Your task to perform on an android device: open chrome privacy settings Image 0: 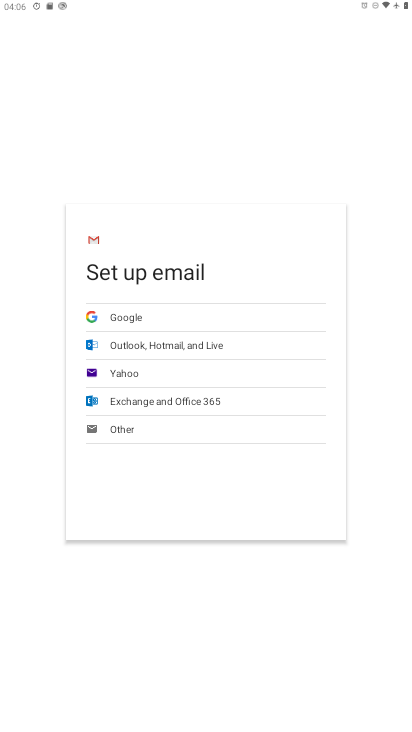
Step 0: press home button
Your task to perform on an android device: open chrome privacy settings Image 1: 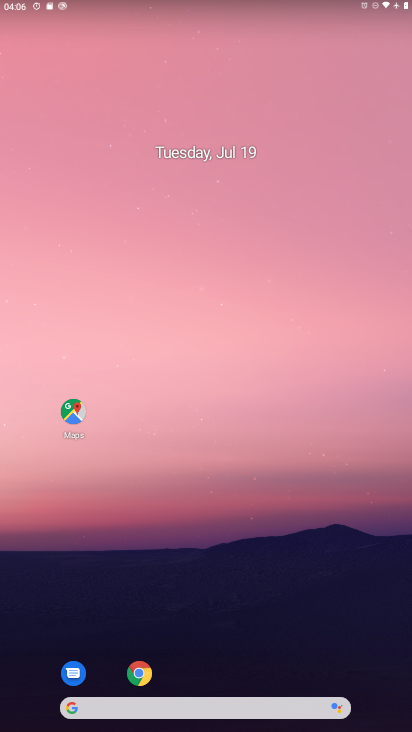
Step 1: click (138, 671)
Your task to perform on an android device: open chrome privacy settings Image 2: 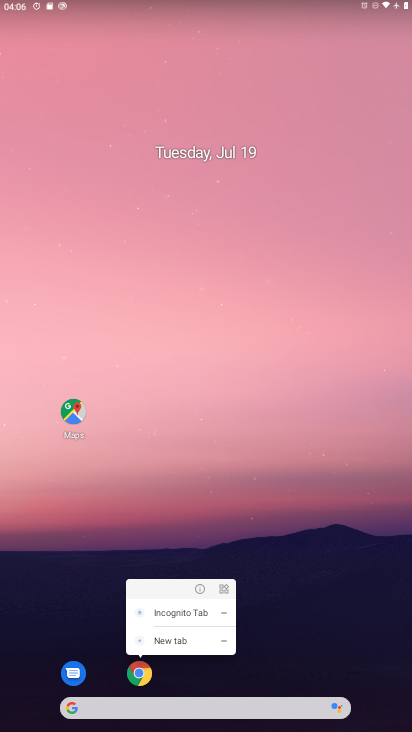
Step 2: click (138, 672)
Your task to perform on an android device: open chrome privacy settings Image 3: 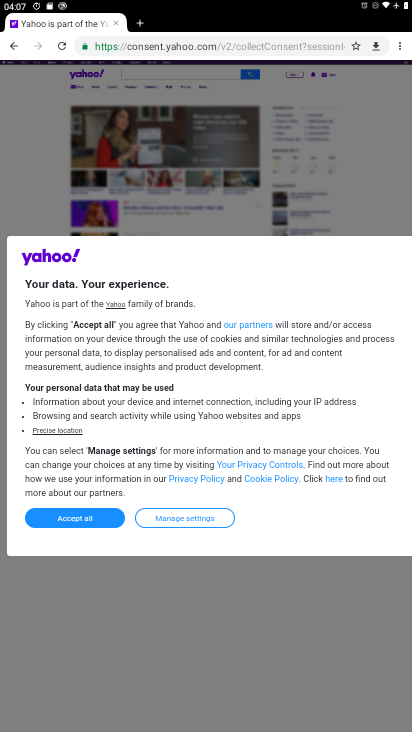
Step 3: click (391, 51)
Your task to perform on an android device: open chrome privacy settings Image 4: 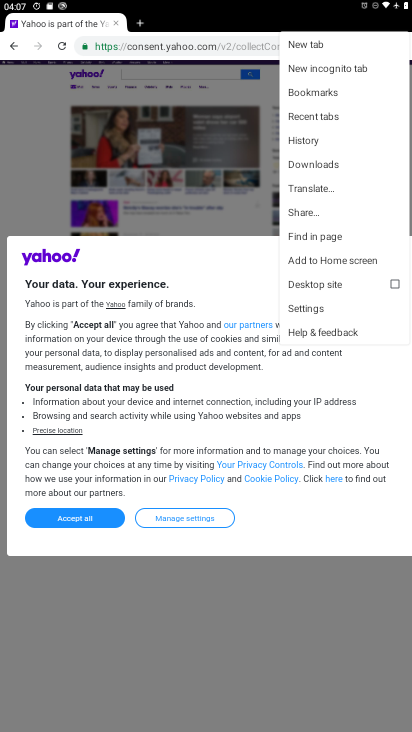
Step 4: click (311, 308)
Your task to perform on an android device: open chrome privacy settings Image 5: 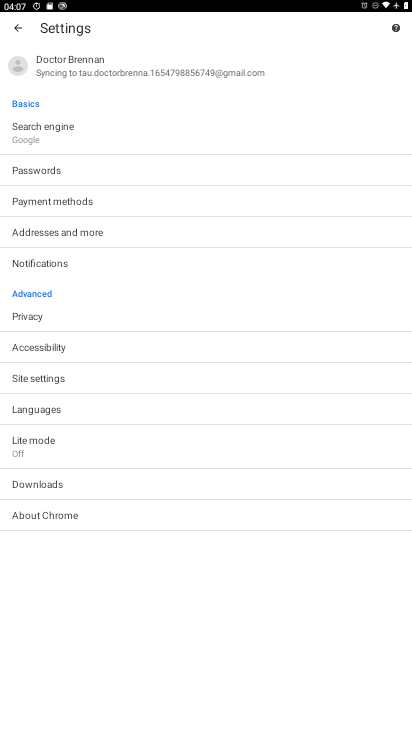
Step 5: click (40, 316)
Your task to perform on an android device: open chrome privacy settings Image 6: 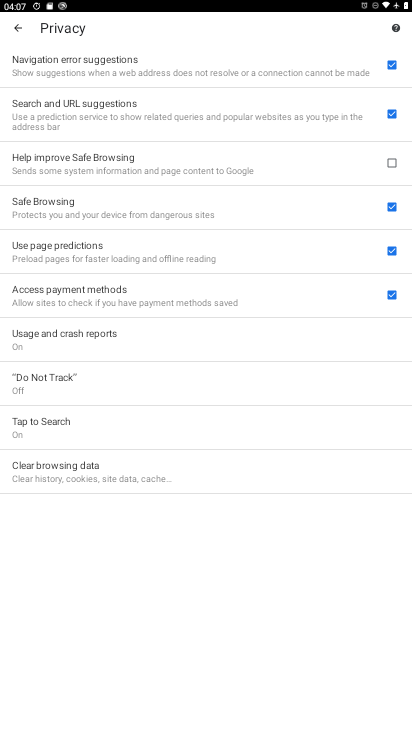
Step 6: press home button
Your task to perform on an android device: open chrome privacy settings Image 7: 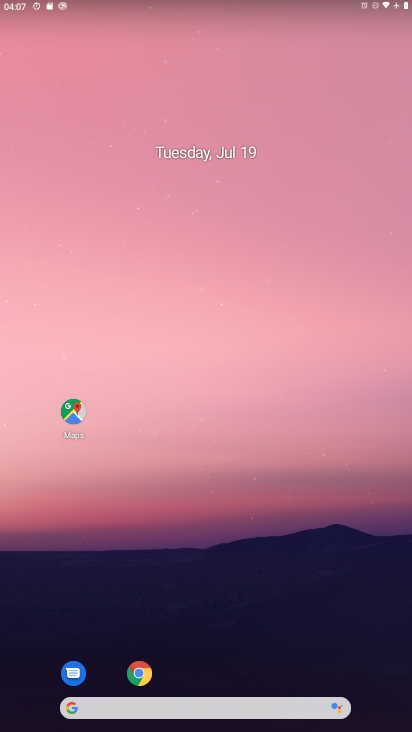
Step 7: click (138, 676)
Your task to perform on an android device: open chrome privacy settings Image 8: 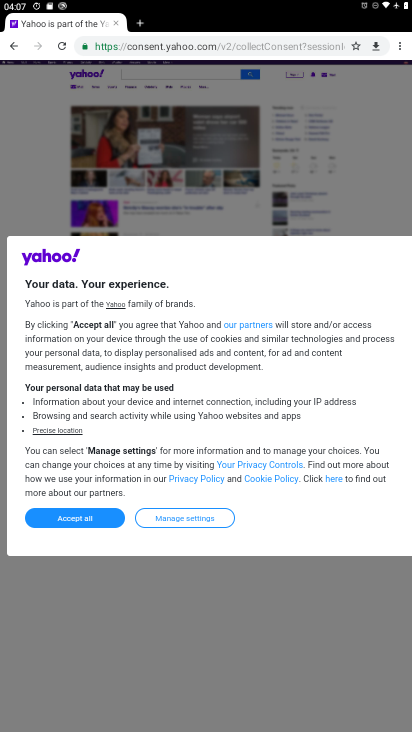
Step 8: click (406, 45)
Your task to perform on an android device: open chrome privacy settings Image 9: 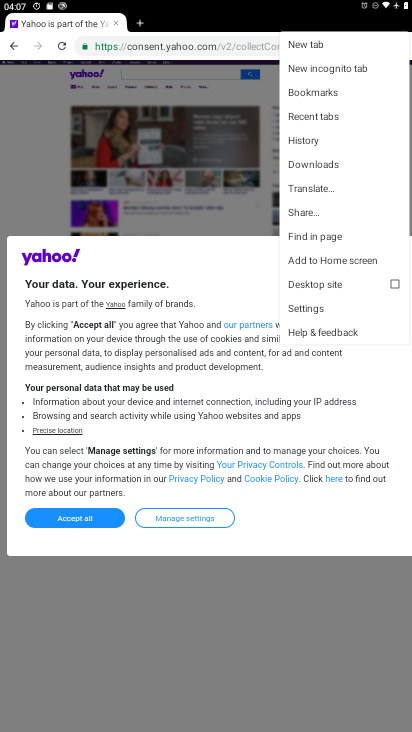
Step 9: click (321, 307)
Your task to perform on an android device: open chrome privacy settings Image 10: 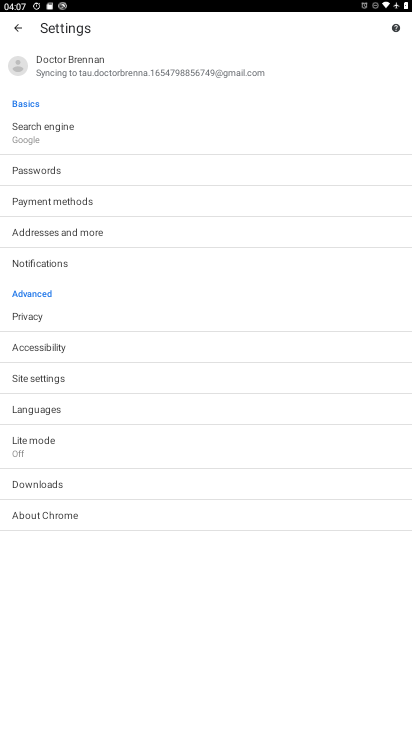
Step 10: click (31, 314)
Your task to perform on an android device: open chrome privacy settings Image 11: 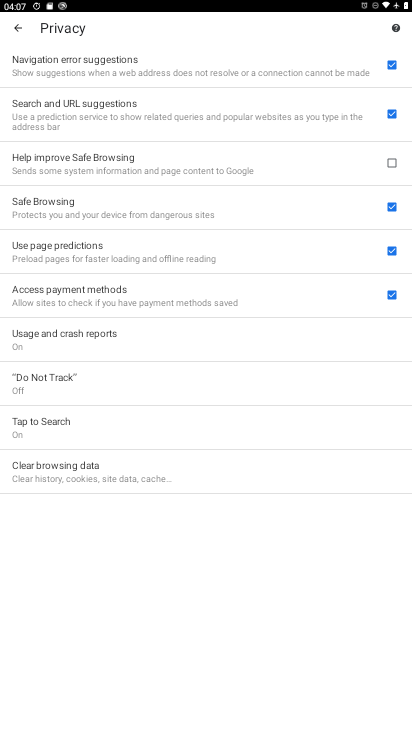
Step 11: task complete